Your task to perform on an android device: Open my contact list Image 0: 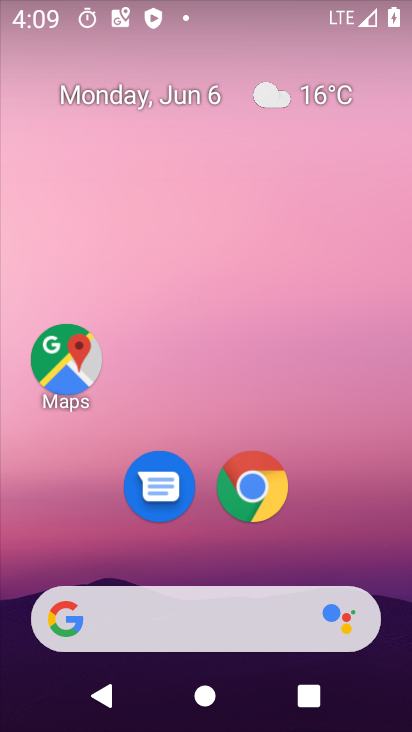
Step 0: drag from (369, 451) to (363, 119)
Your task to perform on an android device: Open my contact list Image 1: 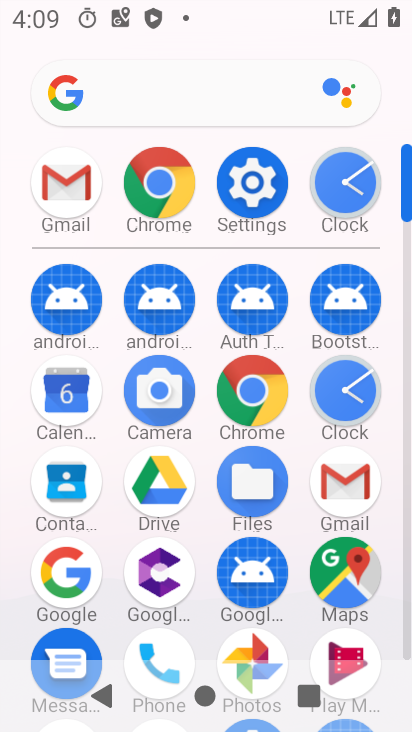
Step 1: click (58, 481)
Your task to perform on an android device: Open my contact list Image 2: 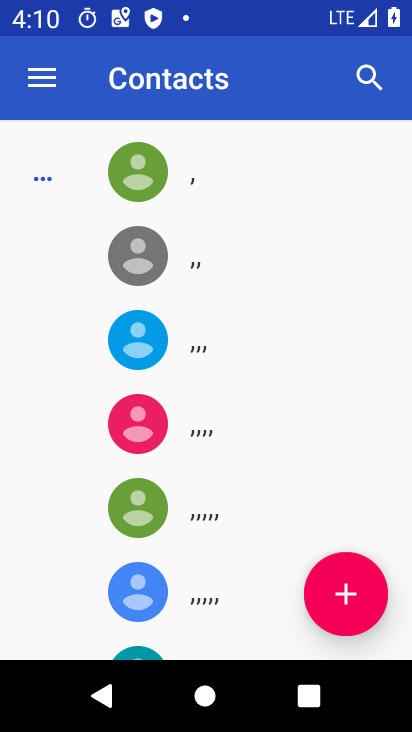
Step 2: task complete